Your task to perform on an android device: all mails in gmail Image 0: 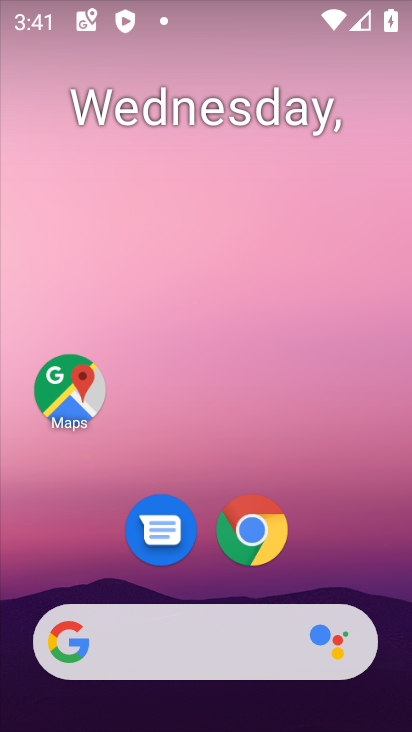
Step 0: drag from (335, 559) to (403, 141)
Your task to perform on an android device: all mails in gmail Image 1: 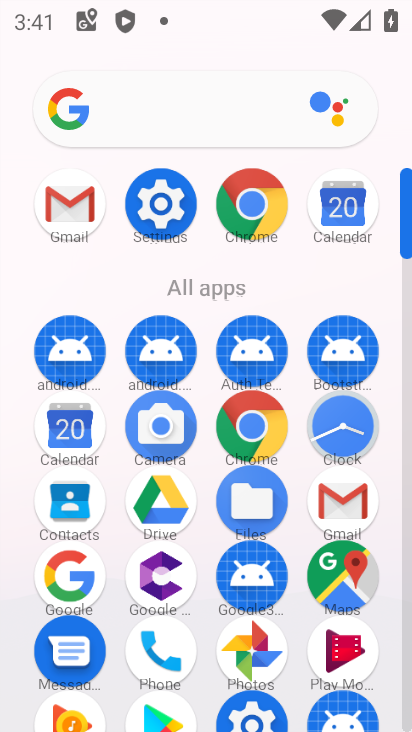
Step 1: click (331, 496)
Your task to perform on an android device: all mails in gmail Image 2: 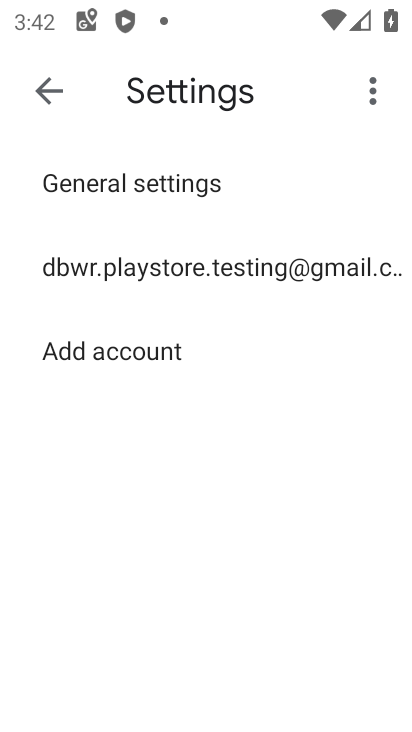
Step 2: click (132, 271)
Your task to perform on an android device: all mails in gmail Image 3: 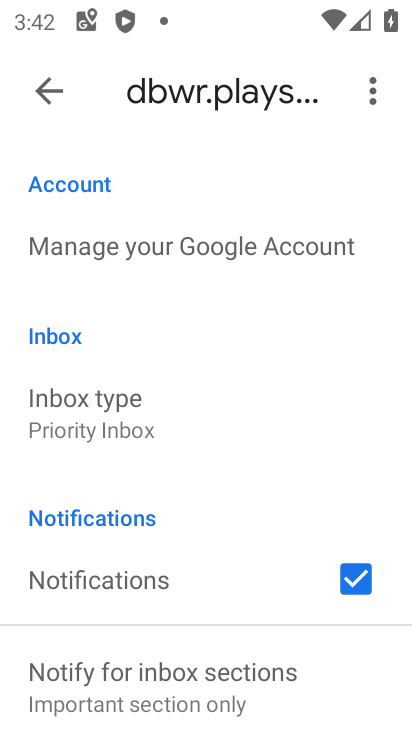
Step 3: click (44, 91)
Your task to perform on an android device: all mails in gmail Image 4: 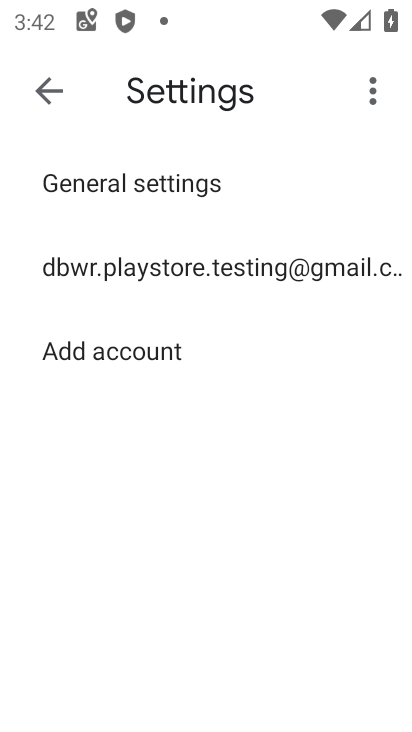
Step 4: click (44, 91)
Your task to perform on an android device: all mails in gmail Image 5: 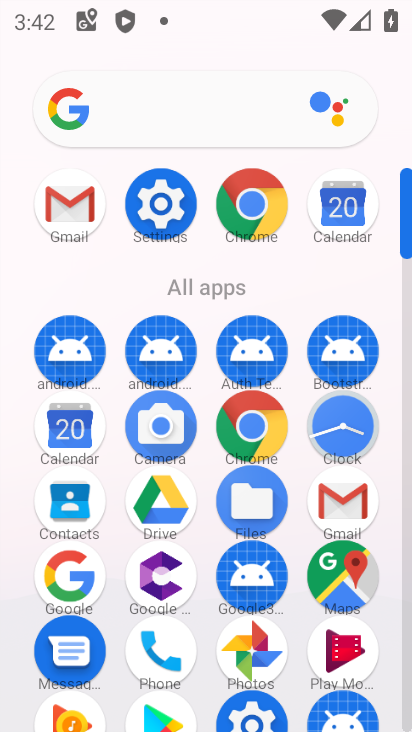
Step 5: click (44, 91)
Your task to perform on an android device: all mails in gmail Image 6: 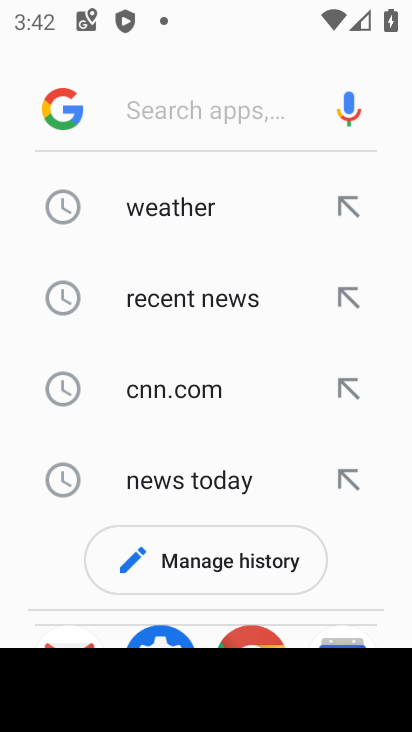
Step 6: press home button
Your task to perform on an android device: all mails in gmail Image 7: 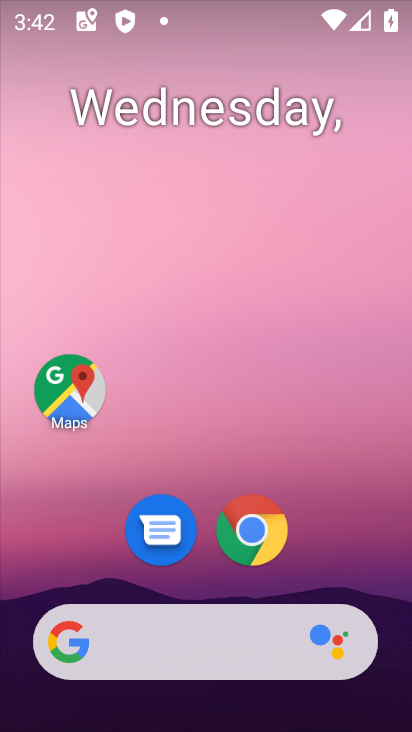
Step 7: drag from (402, 309) to (395, 214)
Your task to perform on an android device: all mails in gmail Image 8: 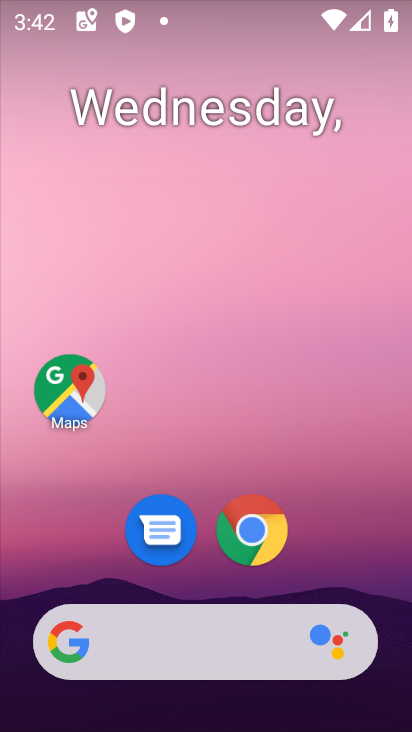
Step 8: drag from (305, 569) to (386, 99)
Your task to perform on an android device: all mails in gmail Image 9: 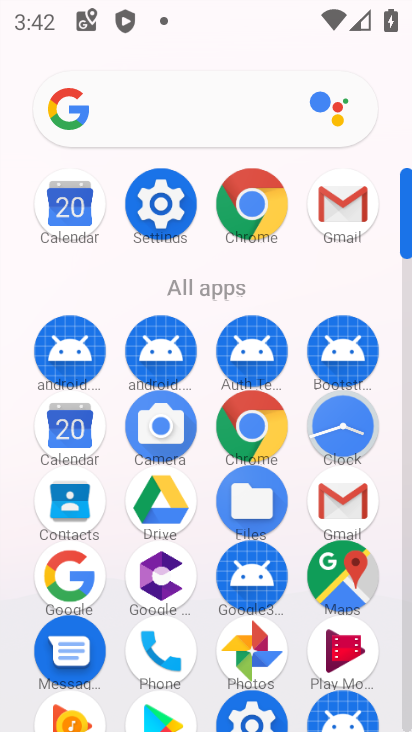
Step 9: click (343, 495)
Your task to perform on an android device: all mails in gmail Image 10: 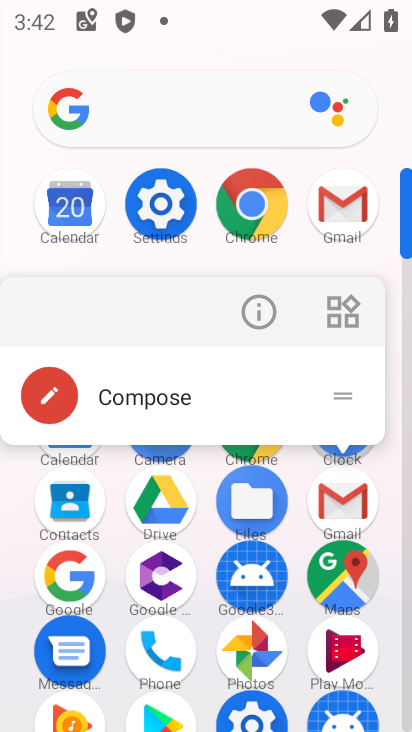
Step 10: click (343, 495)
Your task to perform on an android device: all mails in gmail Image 11: 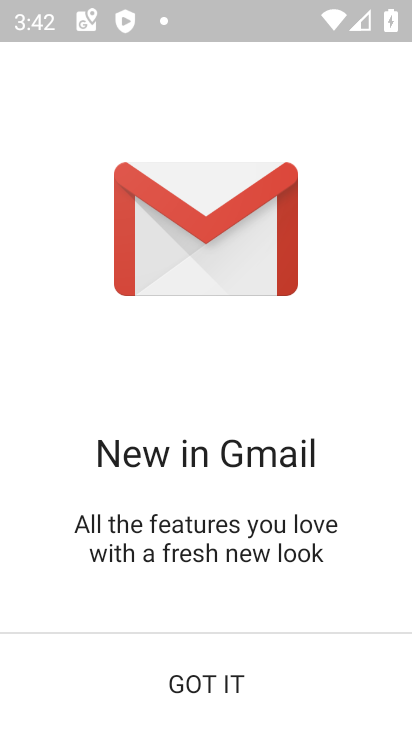
Step 11: click (217, 669)
Your task to perform on an android device: all mails in gmail Image 12: 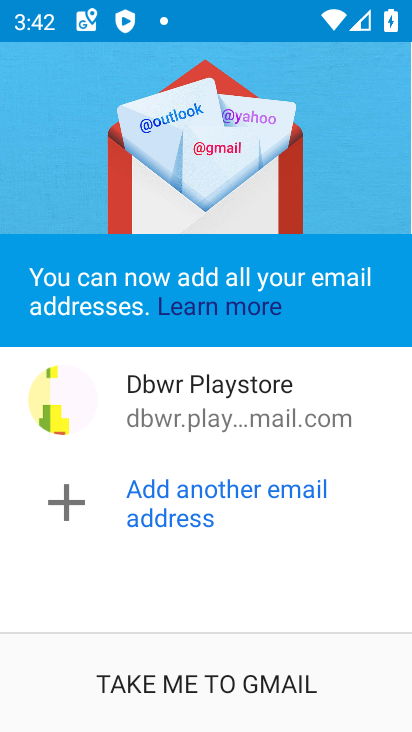
Step 12: click (217, 669)
Your task to perform on an android device: all mails in gmail Image 13: 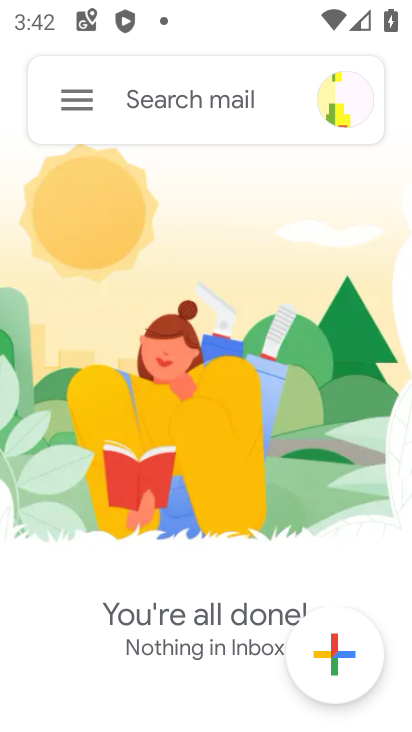
Step 13: click (80, 101)
Your task to perform on an android device: all mails in gmail Image 14: 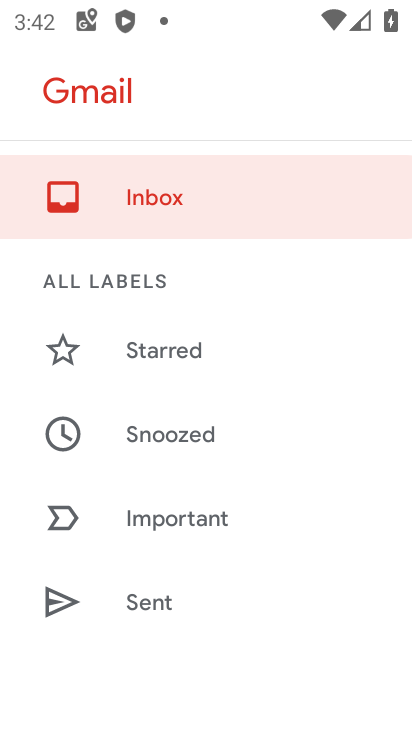
Step 14: drag from (307, 565) to (312, 253)
Your task to perform on an android device: all mails in gmail Image 15: 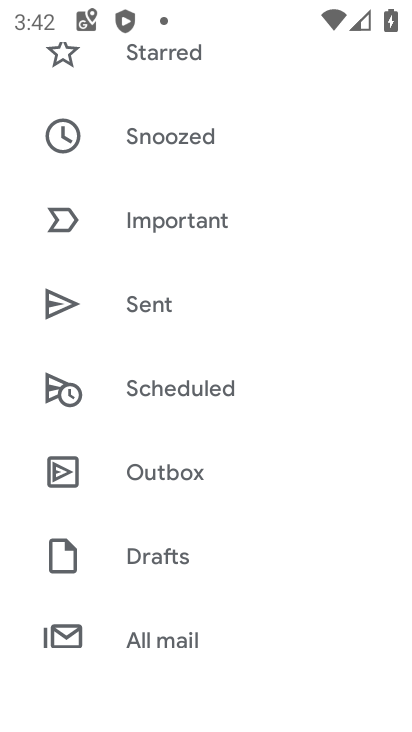
Step 15: click (155, 628)
Your task to perform on an android device: all mails in gmail Image 16: 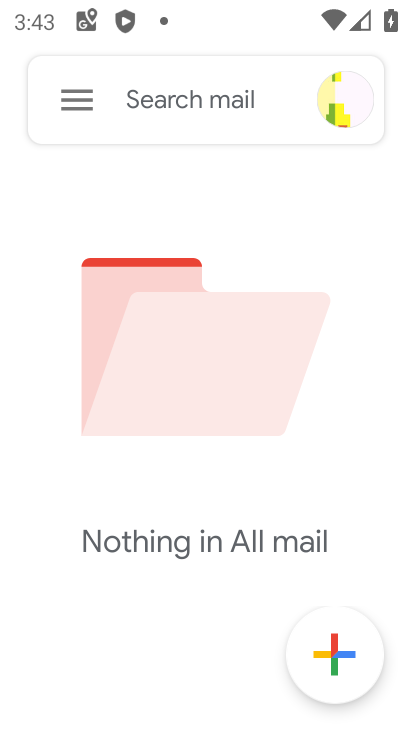
Step 16: task complete